Your task to perform on an android device: turn off javascript in the chrome app Image 0: 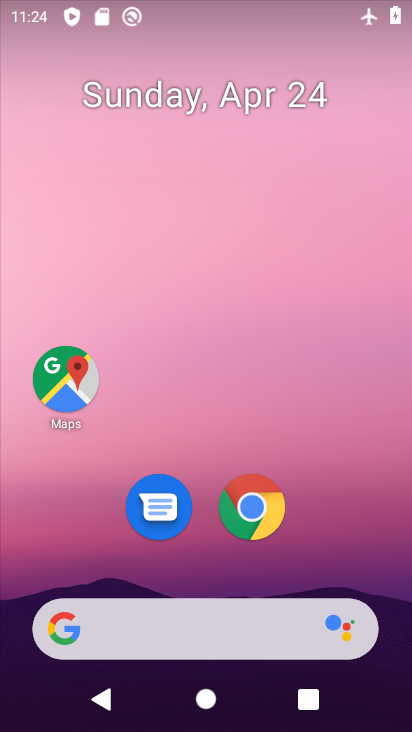
Step 0: drag from (288, 452) to (209, 14)
Your task to perform on an android device: turn off javascript in the chrome app Image 1: 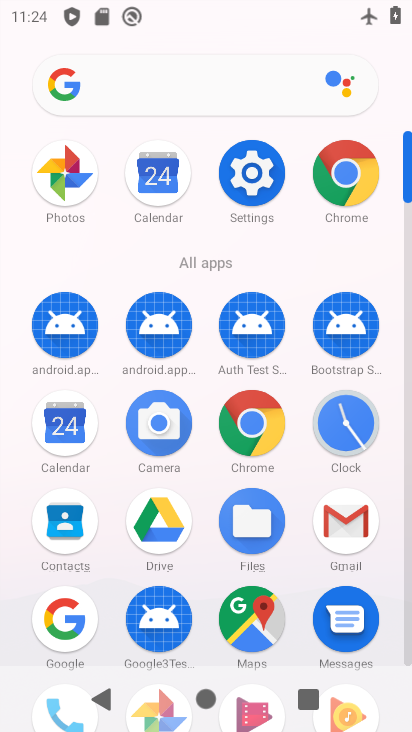
Step 1: drag from (25, 609) to (20, 271)
Your task to perform on an android device: turn off javascript in the chrome app Image 2: 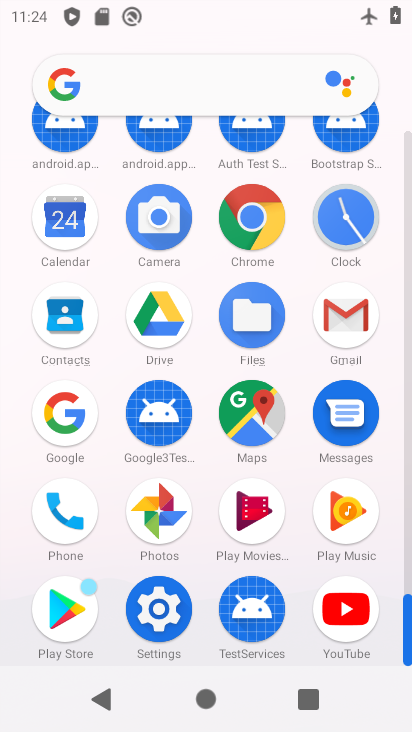
Step 2: click (246, 222)
Your task to perform on an android device: turn off javascript in the chrome app Image 3: 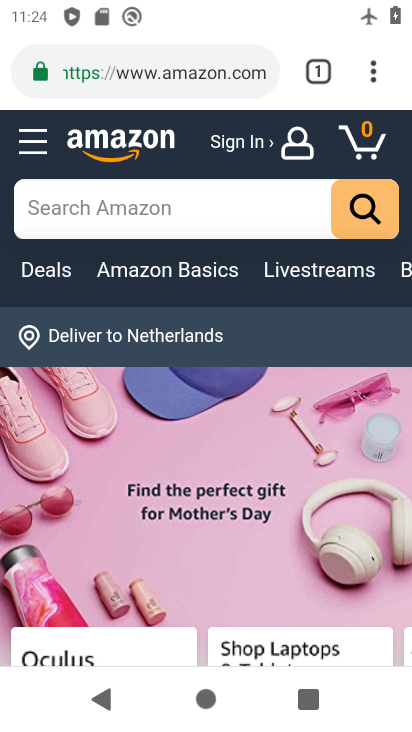
Step 3: drag from (368, 78) to (97, 486)
Your task to perform on an android device: turn off javascript in the chrome app Image 4: 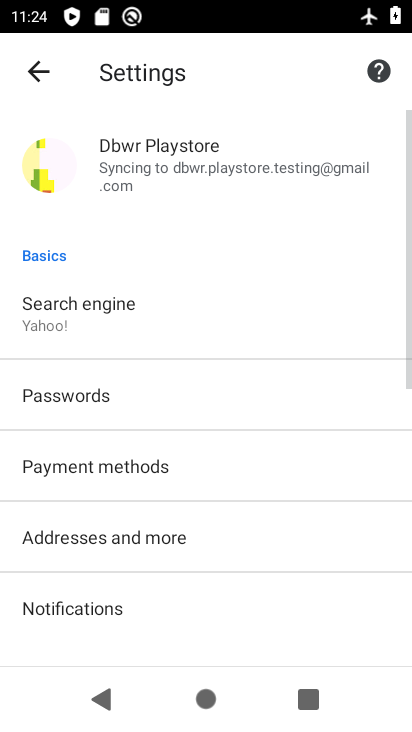
Step 4: drag from (184, 509) to (198, 230)
Your task to perform on an android device: turn off javascript in the chrome app Image 5: 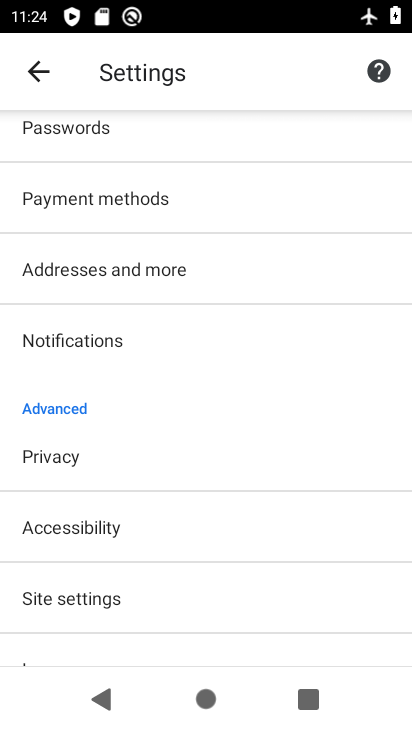
Step 5: click (136, 577)
Your task to perform on an android device: turn off javascript in the chrome app Image 6: 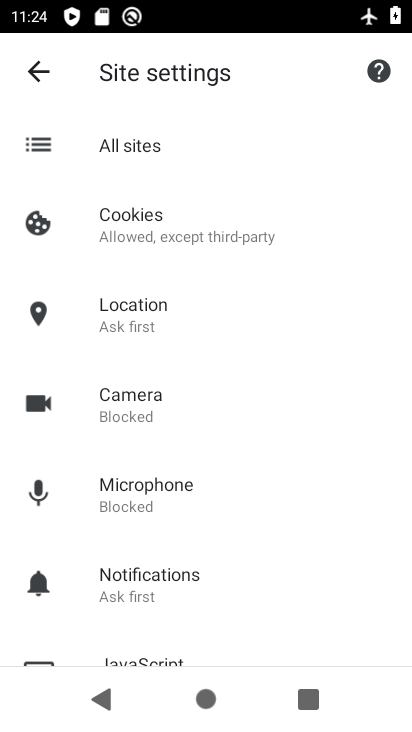
Step 6: drag from (203, 519) to (239, 99)
Your task to perform on an android device: turn off javascript in the chrome app Image 7: 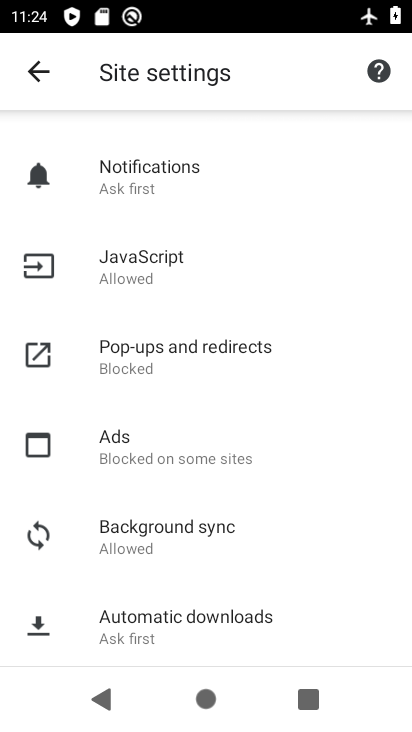
Step 7: click (182, 257)
Your task to perform on an android device: turn off javascript in the chrome app Image 8: 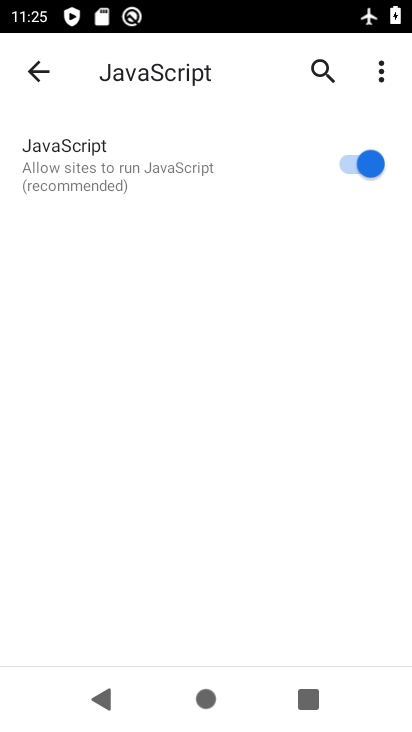
Step 8: click (350, 145)
Your task to perform on an android device: turn off javascript in the chrome app Image 9: 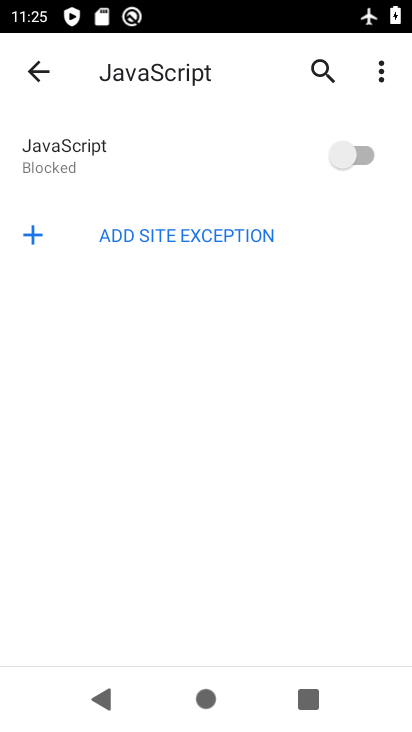
Step 9: task complete